Your task to perform on an android device: Clear all items from cart on walmart.com. Search for macbook on walmart.com, select the first entry, add it to the cart, then select checkout. Image 0: 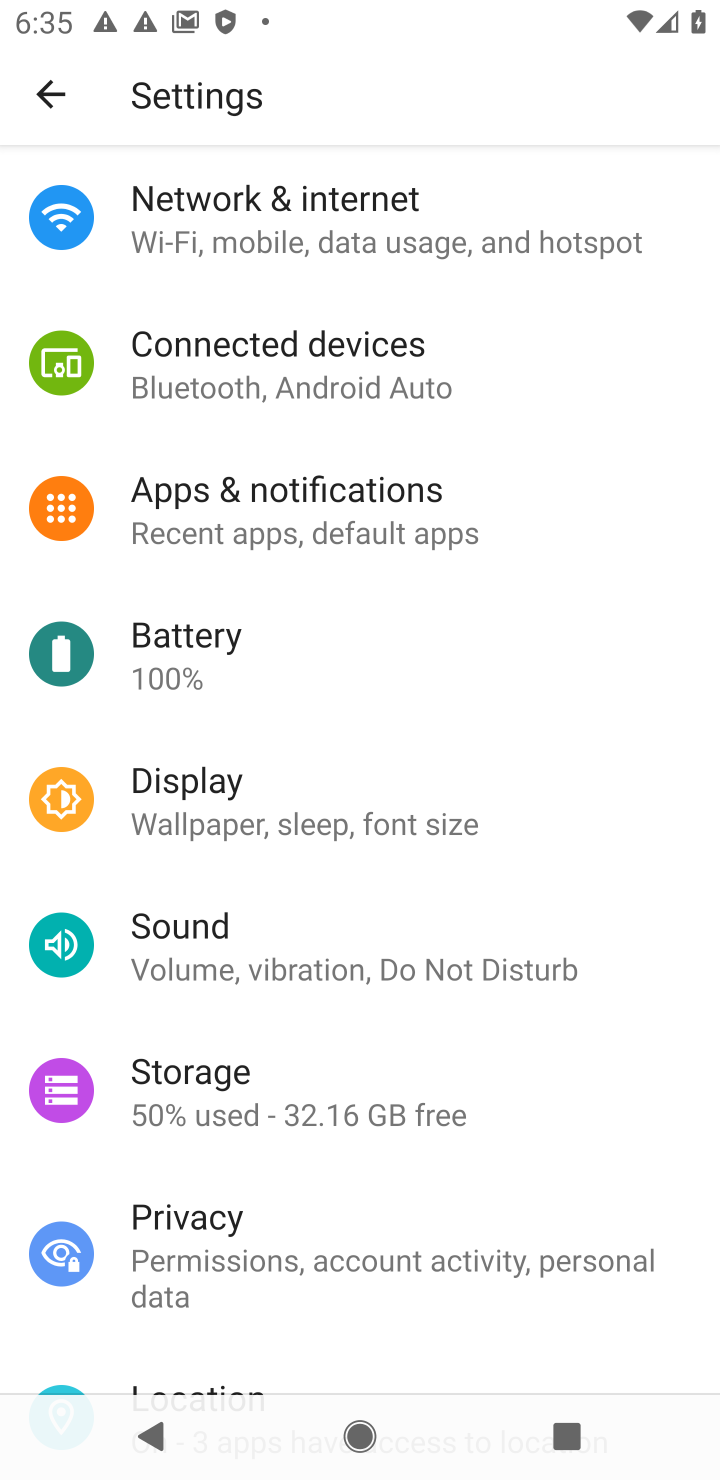
Step 0: press home button
Your task to perform on an android device: Clear all items from cart on walmart.com. Search for macbook on walmart.com, select the first entry, add it to the cart, then select checkout. Image 1: 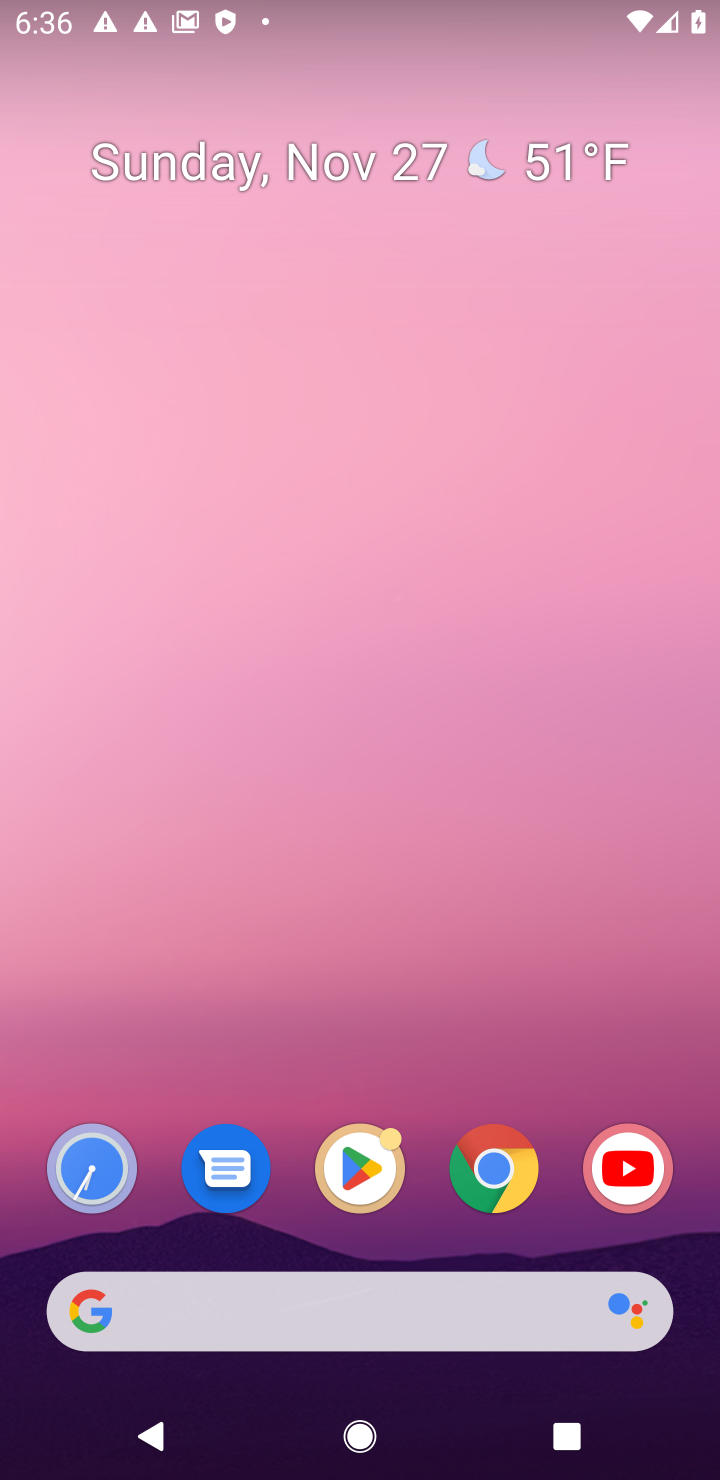
Step 1: click (496, 1173)
Your task to perform on an android device: Clear all items from cart on walmart.com. Search for macbook on walmart.com, select the first entry, add it to the cart, then select checkout. Image 2: 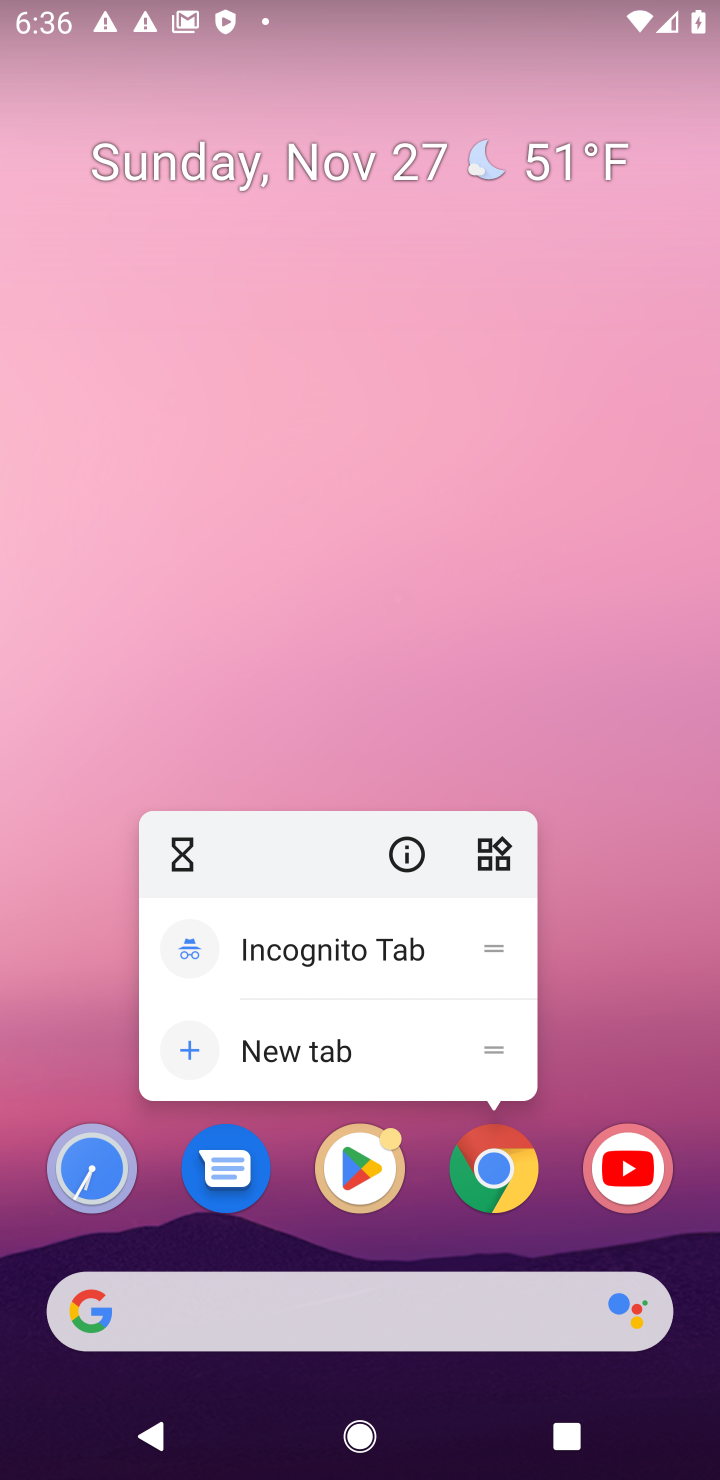
Step 2: click (496, 1173)
Your task to perform on an android device: Clear all items from cart on walmart.com. Search for macbook on walmart.com, select the first entry, add it to the cart, then select checkout. Image 3: 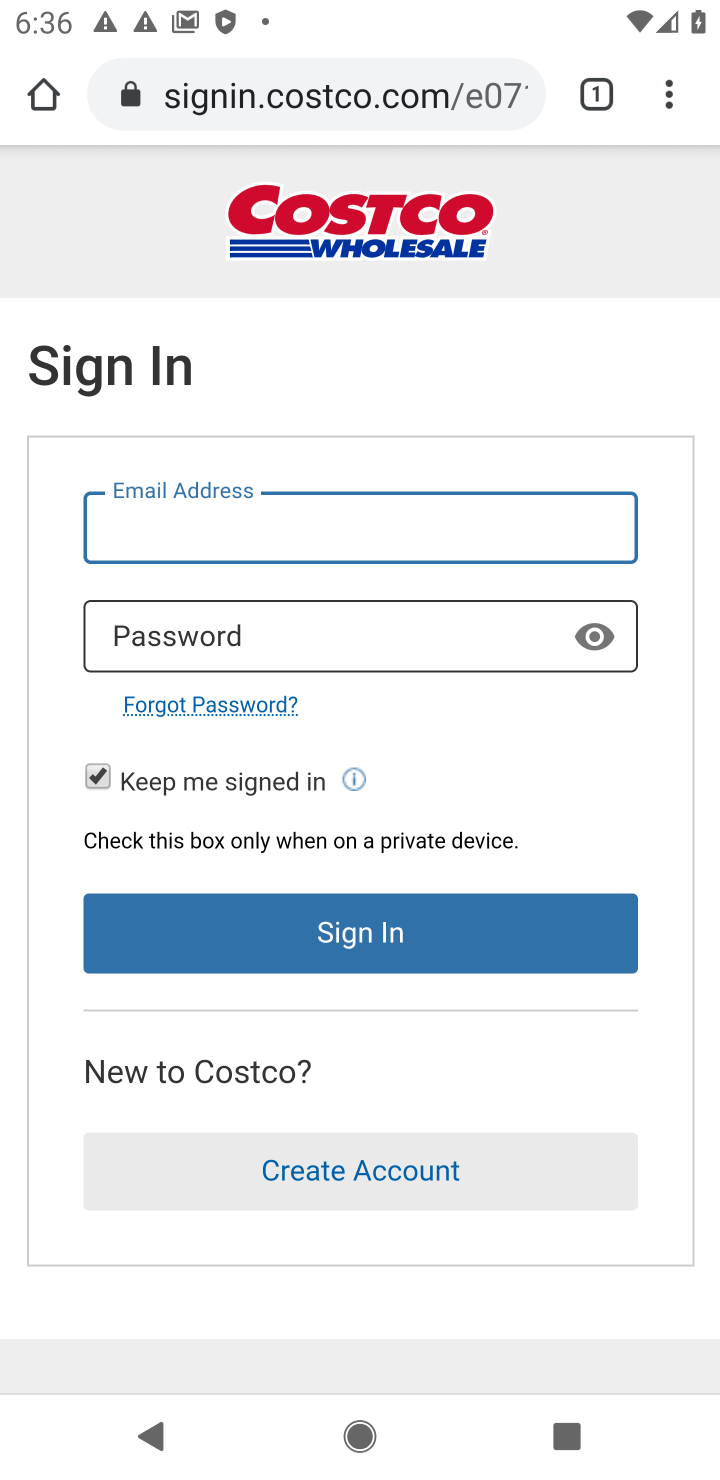
Step 3: click (440, 86)
Your task to perform on an android device: Clear all items from cart on walmart.com. Search for macbook on walmart.com, select the first entry, add it to the cart, then select checkout. Image 4: 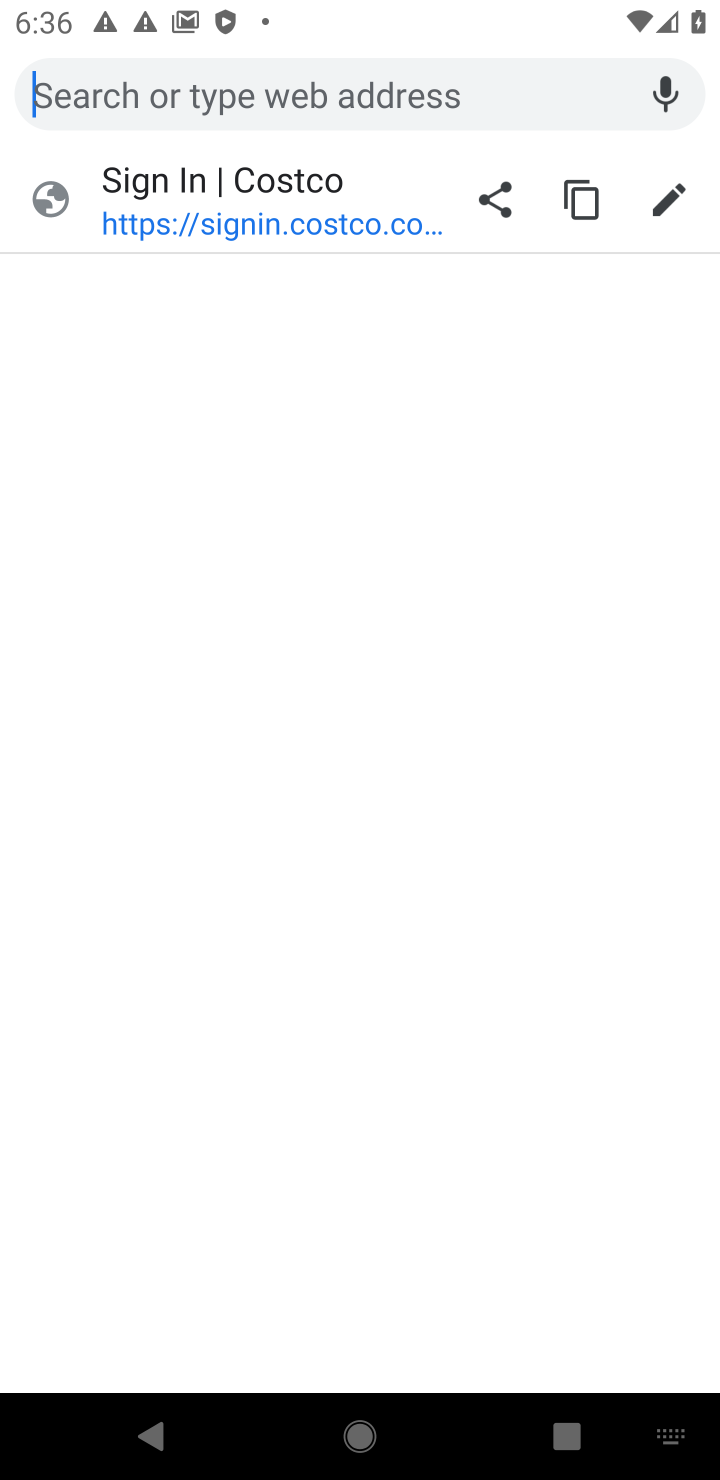
Step 4: type "walmart.com"
Your task to perform on an android device: Clear all items from cart on walmart.com. Search for macbook on walmart.com, select the first entry, add it to the cart, then select checkout. Image 5: 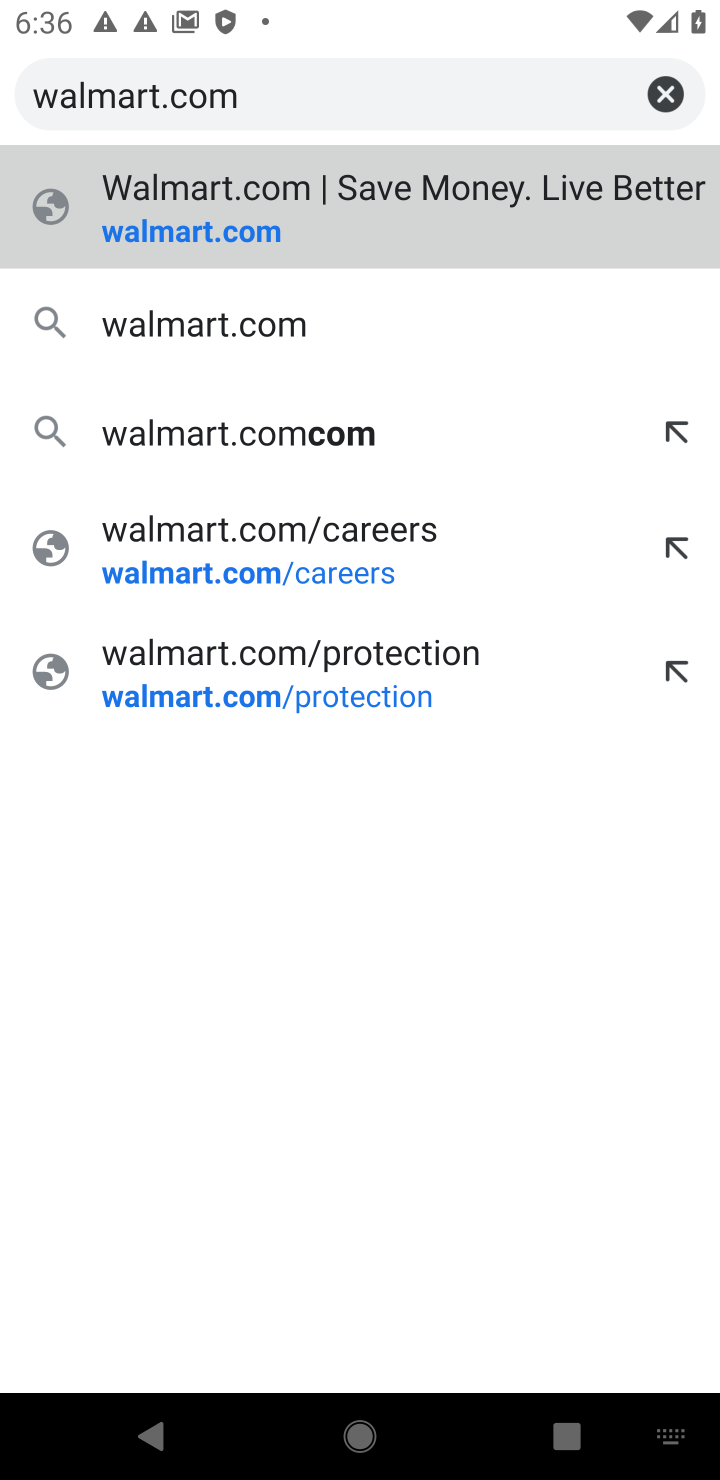
Step 5: click (260, 322)
Your task to perform on an android device: Clear all items from cart on walmart.com. Search for macbook on walmart.com, select the first entry, add it to the cart, then select checkout. Image 6: 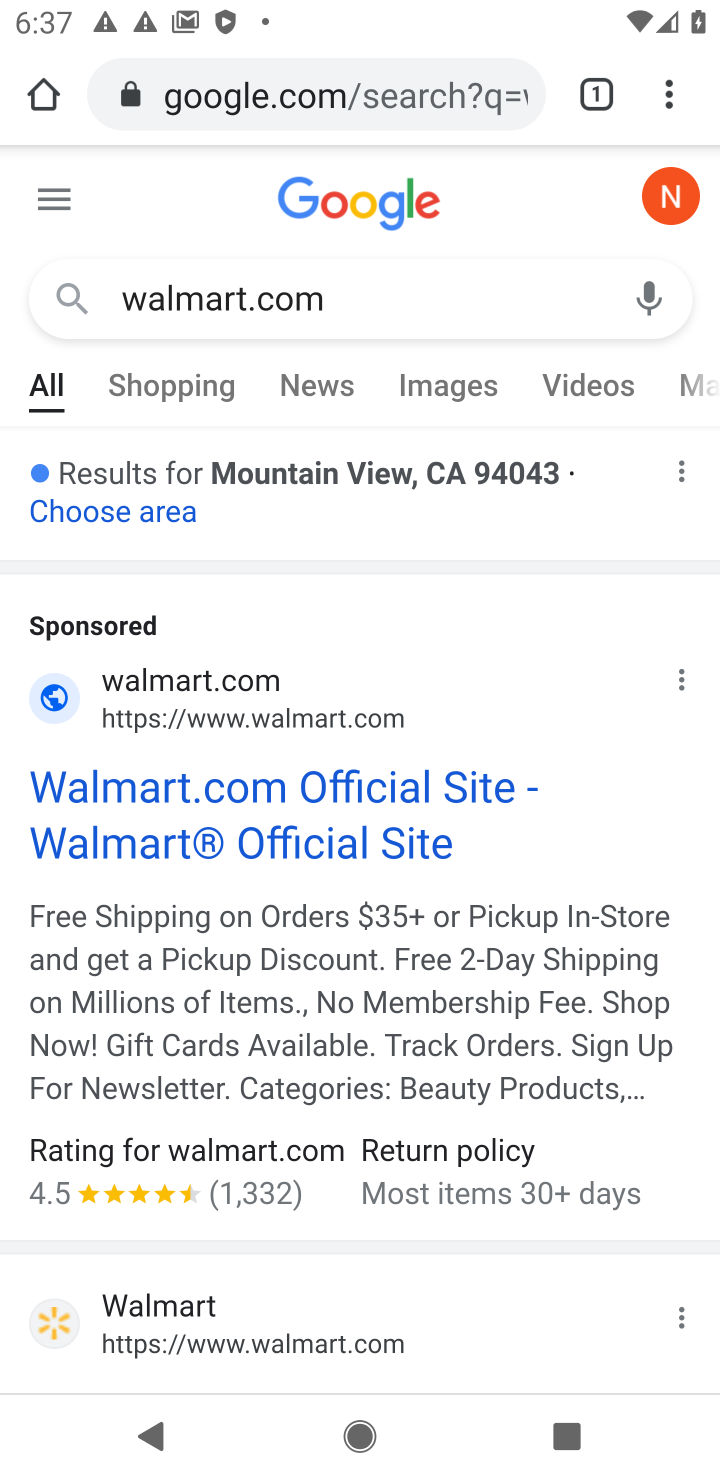
Step 6: drag from (391, 1303) to (540, 818)
Your task to perform on an android device: Clear all items from cart on walmart.com. Search for macbook on walmart.com, select the first entry, add it to the cart, then select checkout. Image 7: 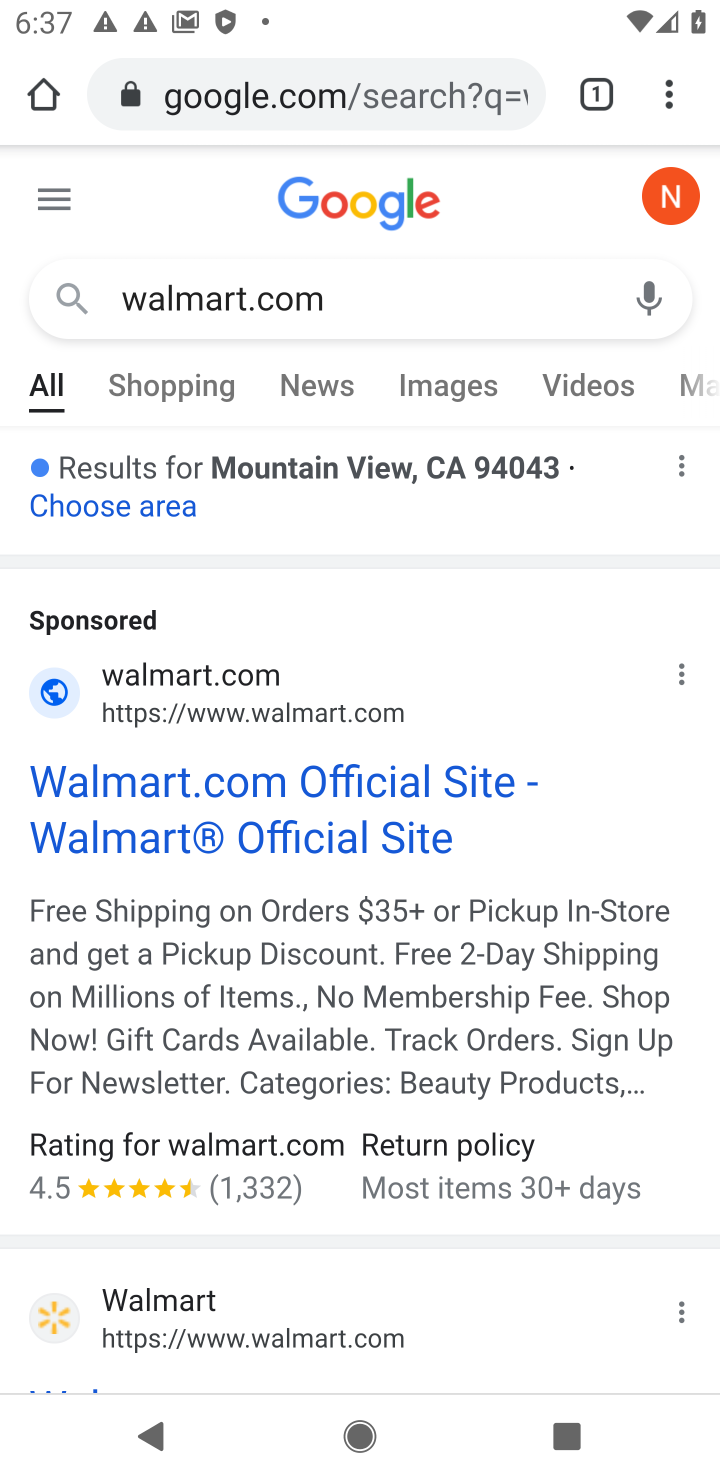
Step 7: click (288, 1332)
Your task to perform on an android device: Clear all items from cart on walmart.com. Search for macbook on walmart.com, select the first entry, add it to the cart, then select checkout. Image 8: 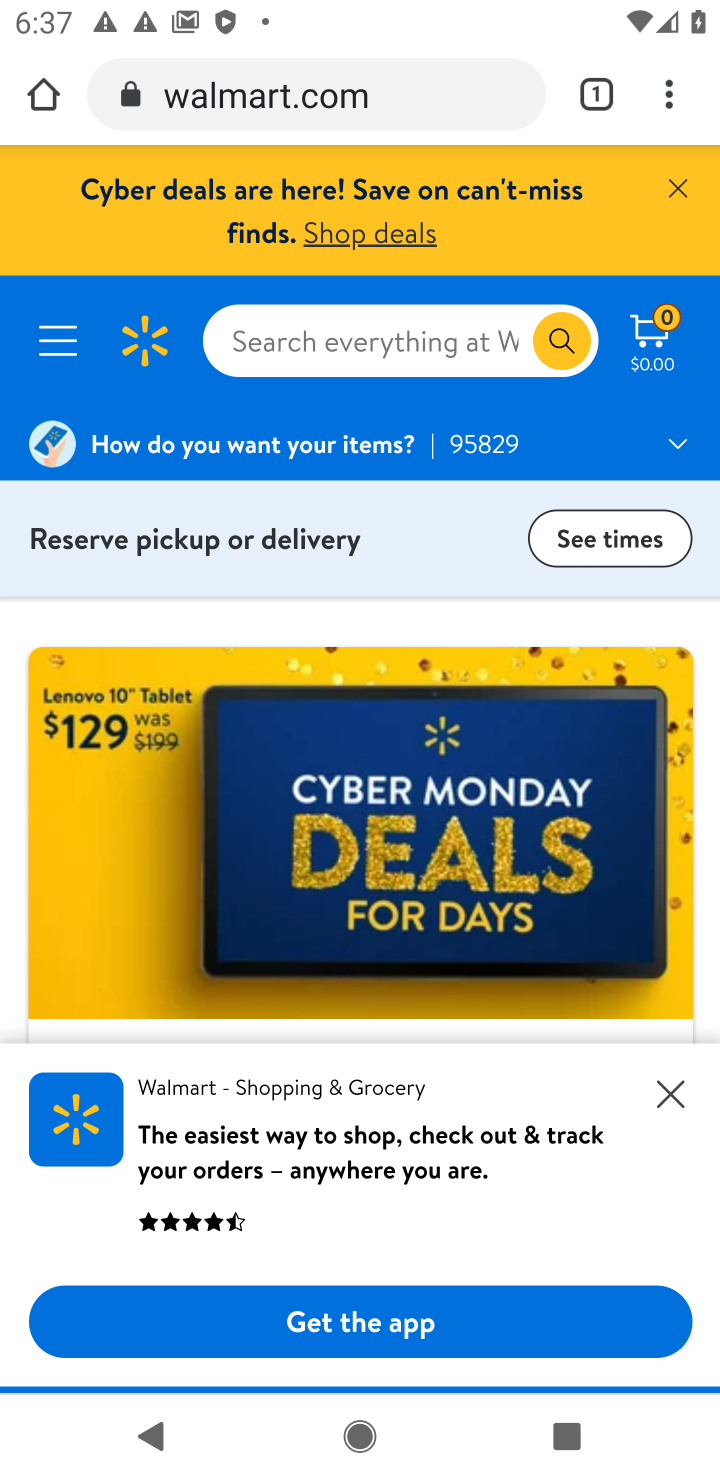
Step 8: click (434, 355)
Your task to perform on an android device: Clear all items from cart on walmart.com. Search for macbook on walmart.com, select the first entry, add it to the cart, then select checkout. Image 9: 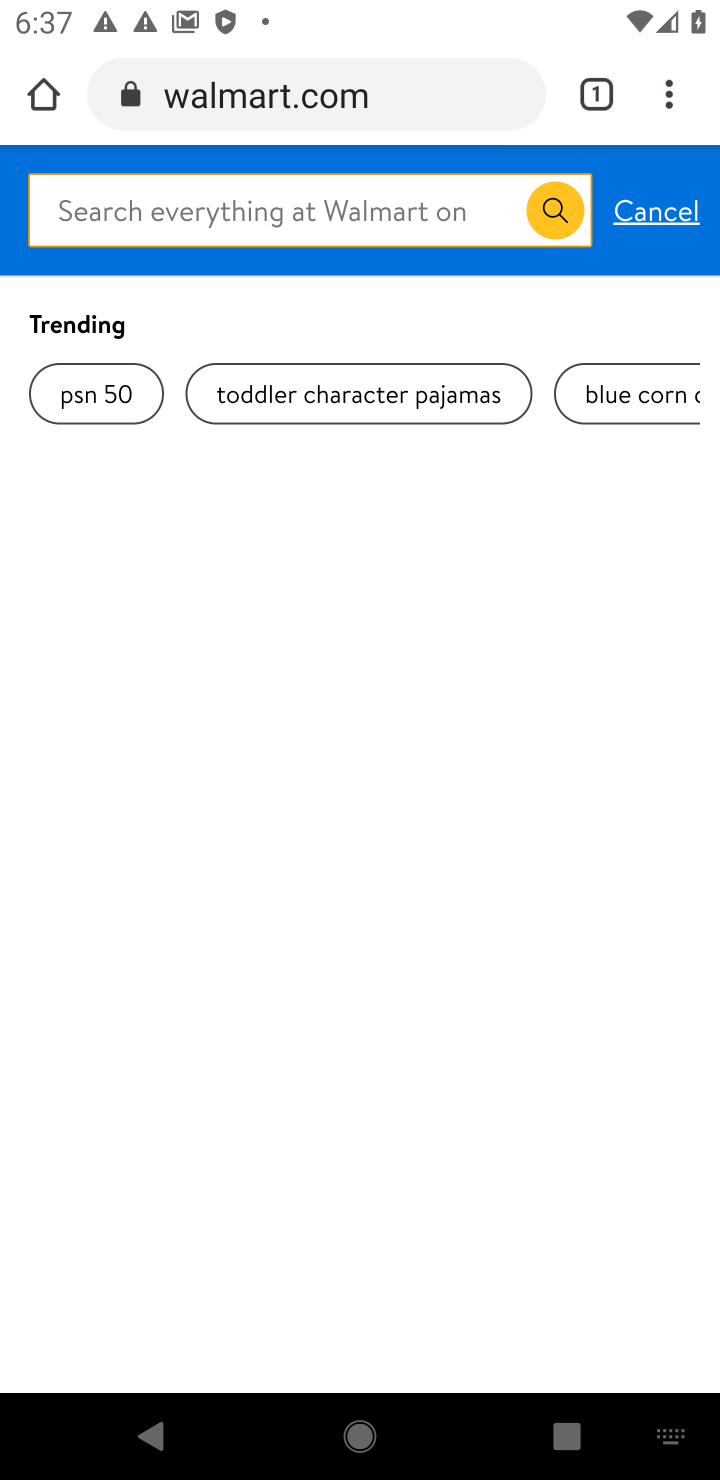
Step 9: type "macbook"
Your task to perform on an android device: Clear all items from cart on walmart.com. Search for macbook on walmart.com, select the first entry, add it to the cart, then select checkout. Image 10: 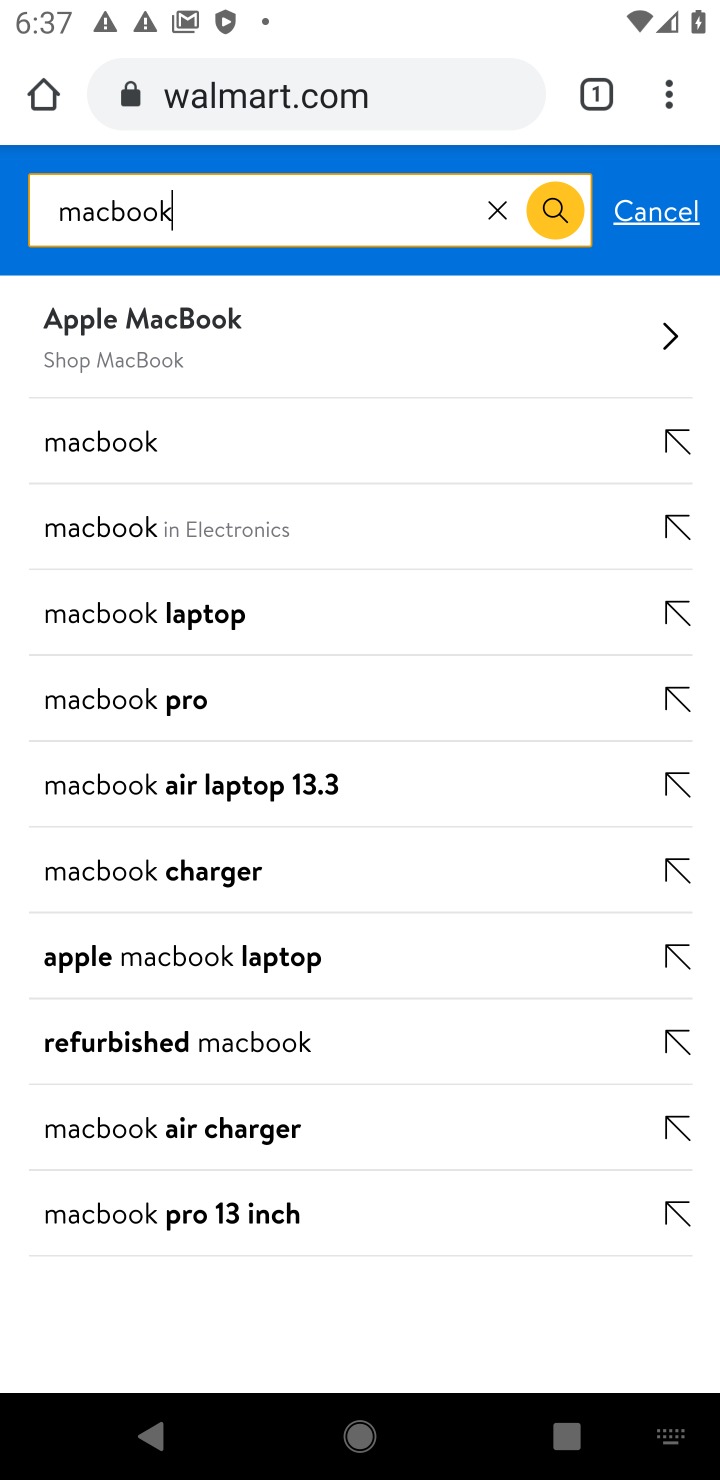
Step 10: click (72, 442)
Your task to perform on an android device: Clear all items from cart on walmart.com. Search for macbook on walmart.com, select the first entry, add it to the cart, then select checkout. Image 11: 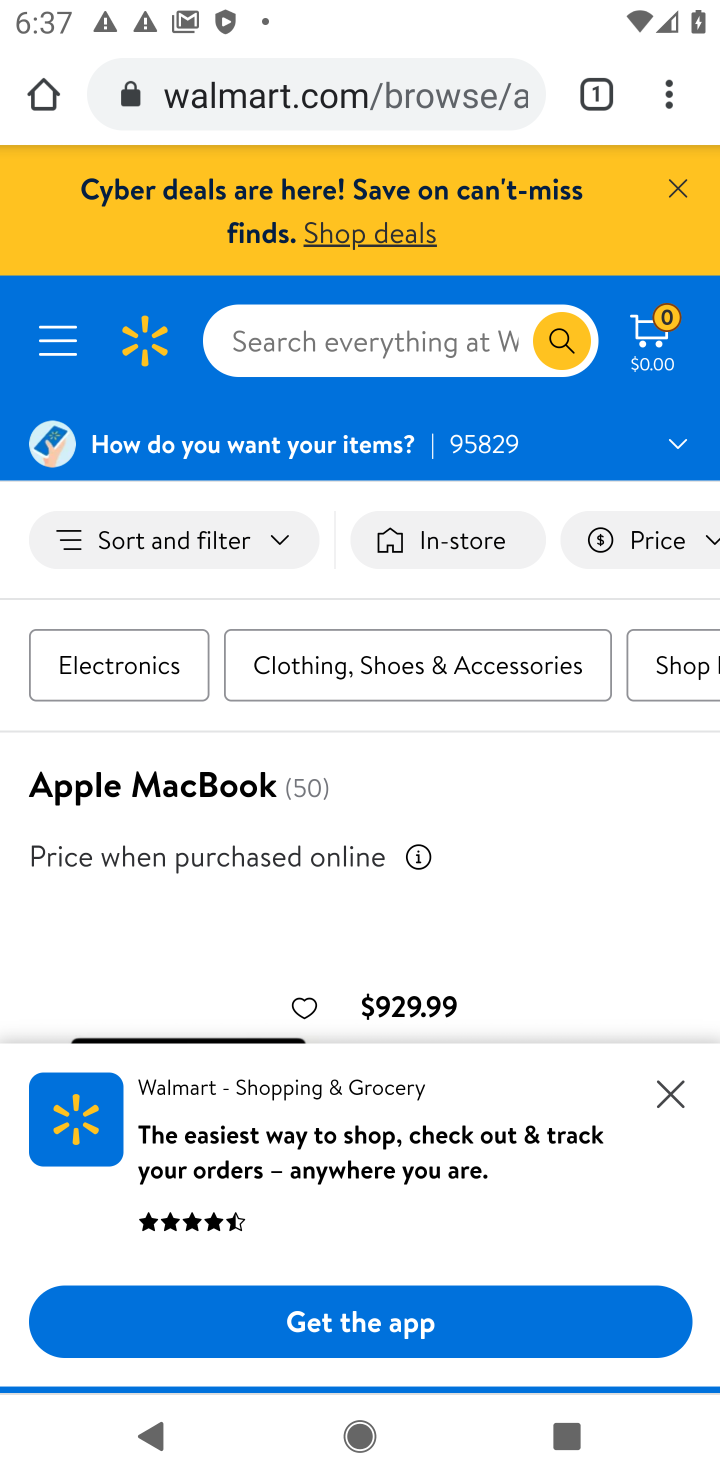
Step 11: click (673, 1096)
Your task to perform on an android device: Clear all items from cart on walmart.com. Search for macbook on walmart.com, select the first entry, add it to the cart, then select checkout. Image 12: 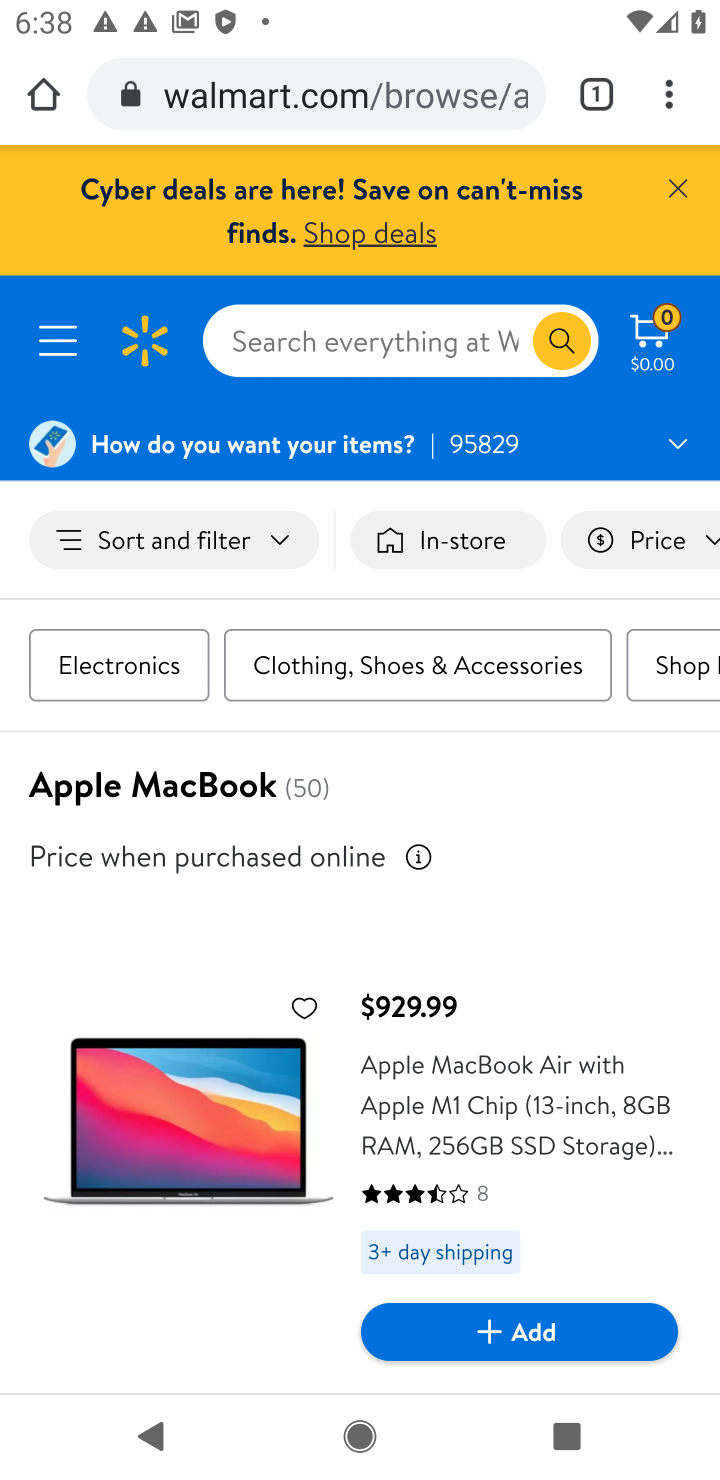
Step 12: click (524, 1328)
Your task to perform on an android device: Clear all items from cart on walmart.com. Search for macbook on walmart.com, select the first entry, add it to the cart, then select checkout. Image 13: 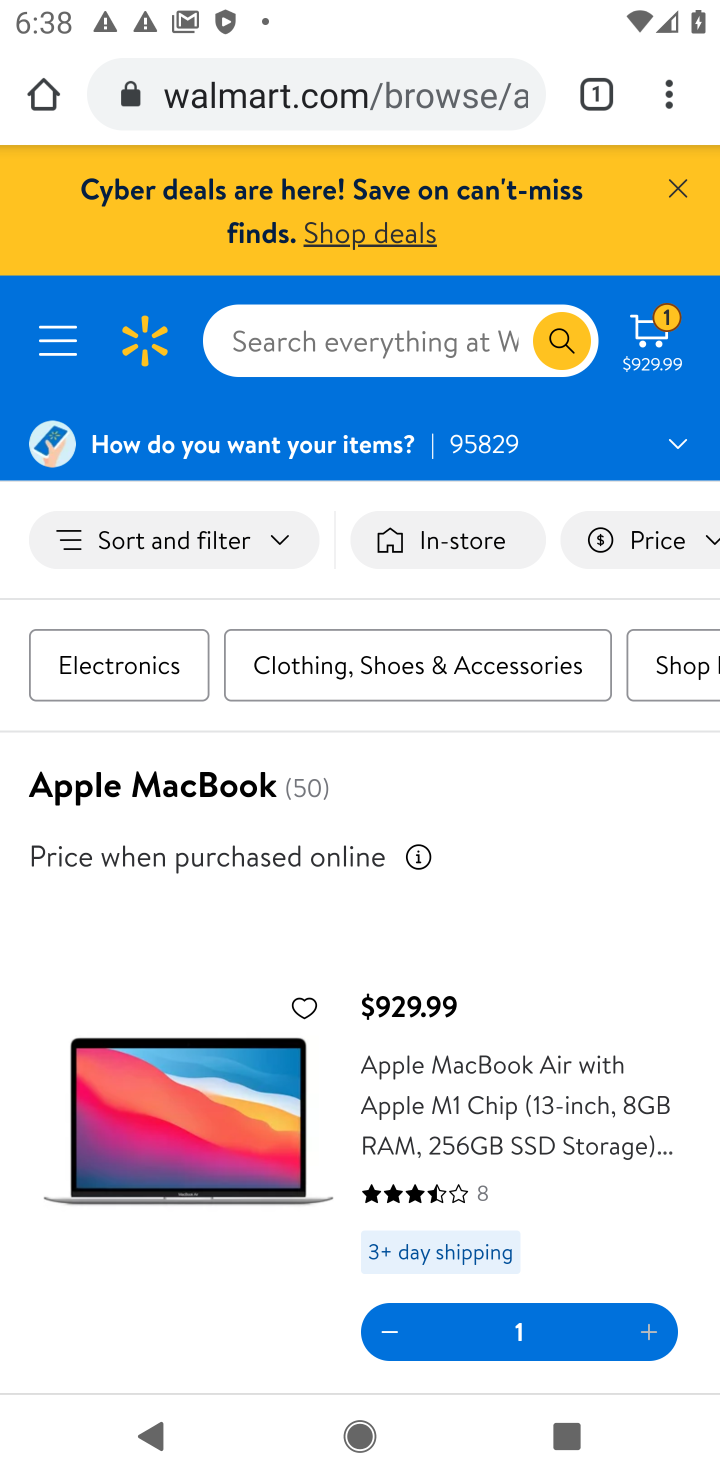
Step 13: click (666, 318)
Your task to perform on an android device: Clear all items from cart on walmart.com. Search for macbook on walmart.com, select the first entry, add it to the cart, then select checkout. Image 14: 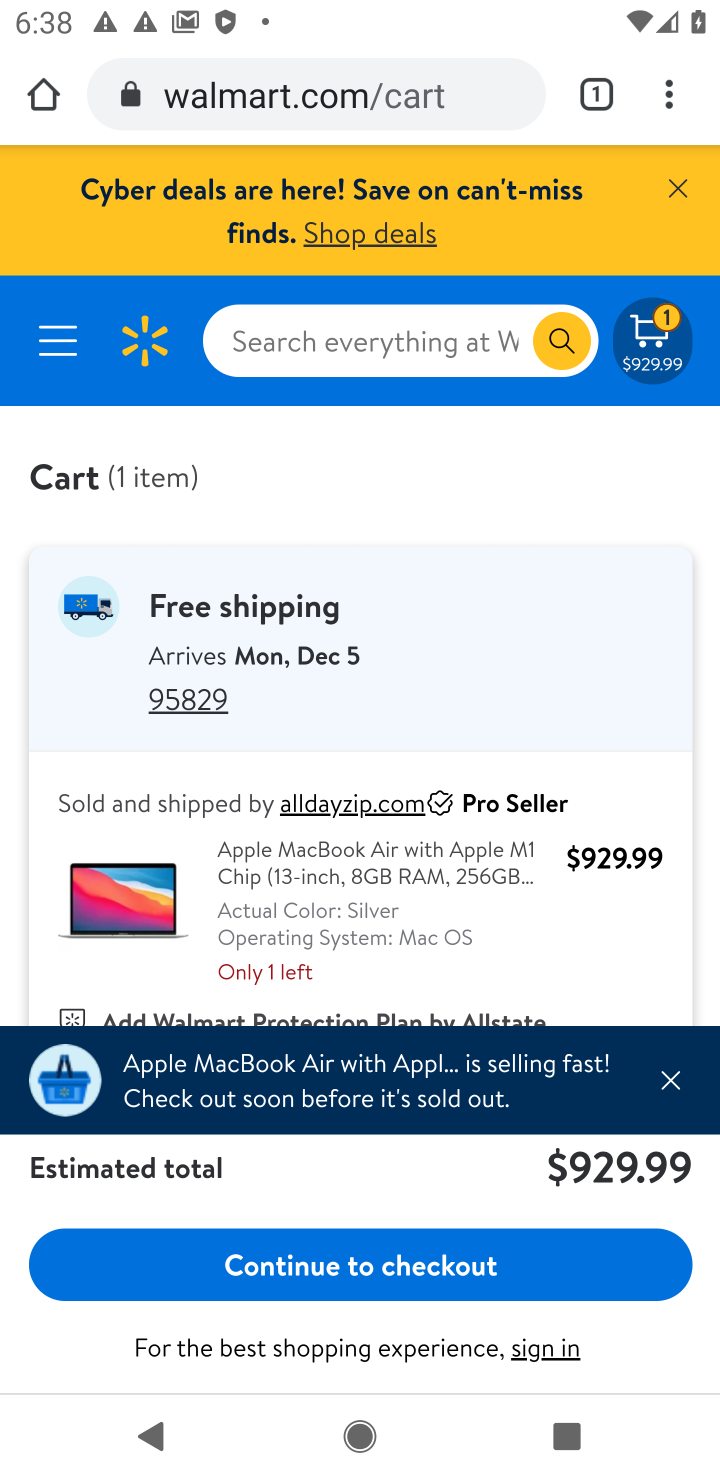
Step 14: click (291, 1265)
Your task to perform on an android device: Clear all items from cart on walmart.com. Search for macbook on walmart.com, select the first entry, add it to the cart, then select checkout. Image 15: 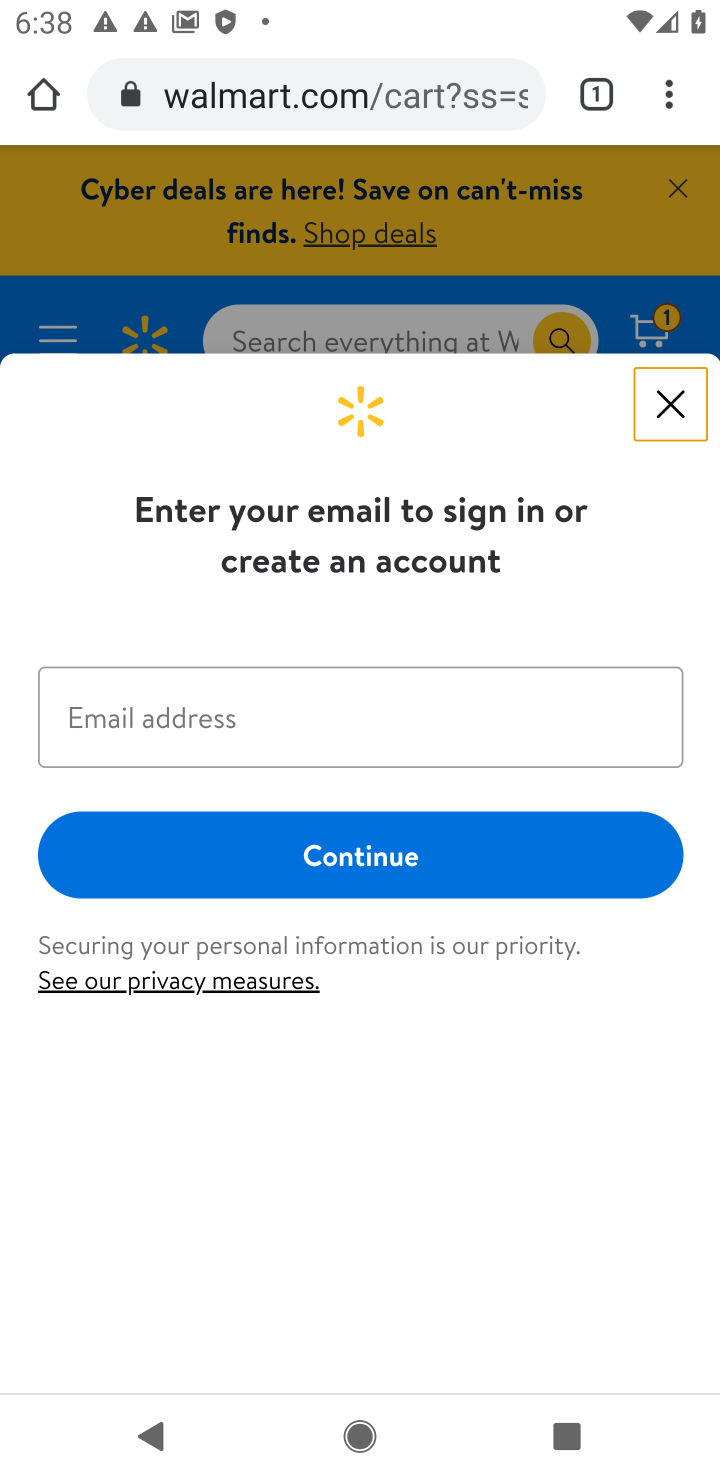
Step 15: task complete